Your task to perform on an android device: Open Google Maps and go to "Timeline" Image 0: 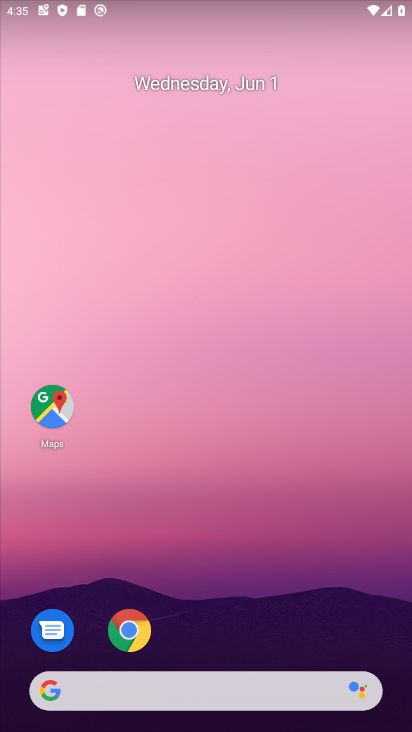
Step 0: click (43, 408)
Your task to perform on an android device: Open Google Maps and go to "Timeline" Image 1: 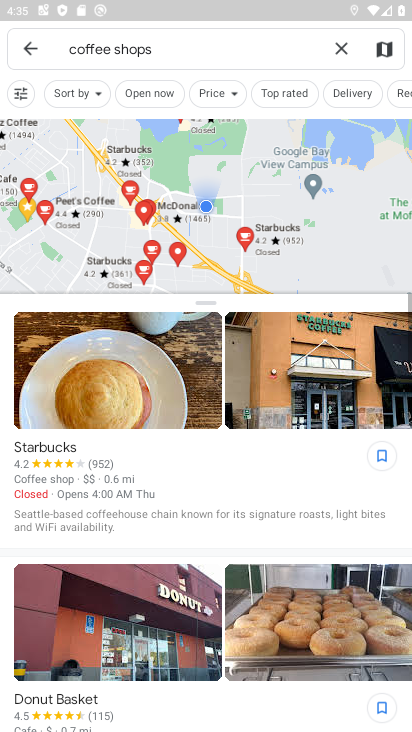
Step 1: click (34, 53)
Your task to perform on an android device: Open Google Maps and go to "Timeline" Image 2: 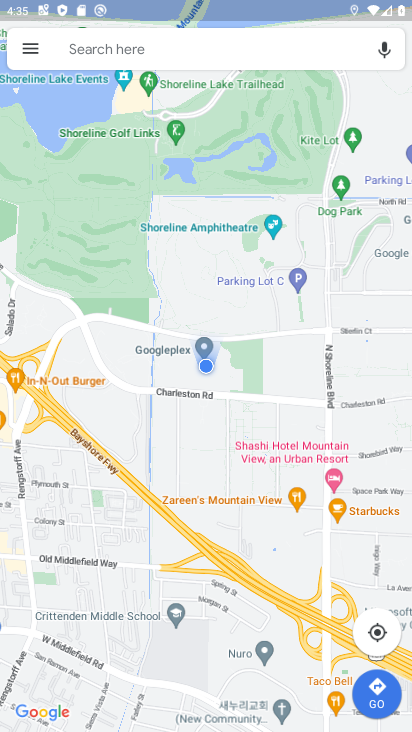
Step 2: click (33, 51)
Your task to perform on an android device: Open Google Maps and go to "Timeline" Image 3: 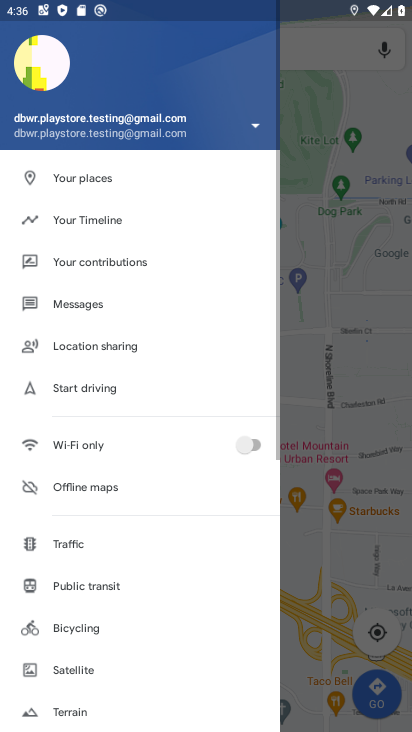
Step 3: click (125, 225)
Your task to perform on an android device: Open Google Maps and go to "Timeline" Image 4: 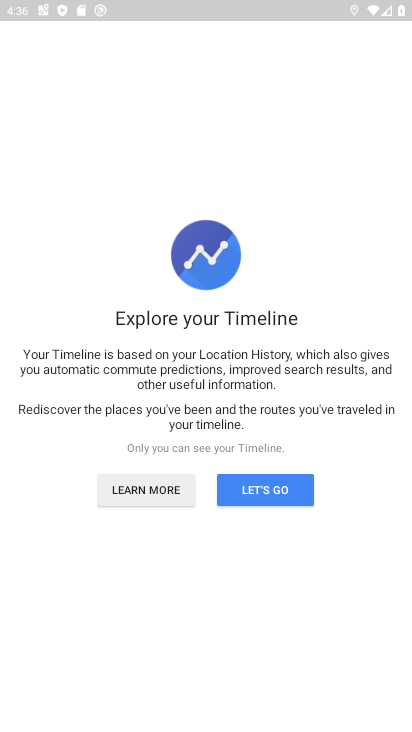
Step 4: click (246, 491)
Your task to perform on an android device: Open Google Maps and go to "Timeline" Image 5: 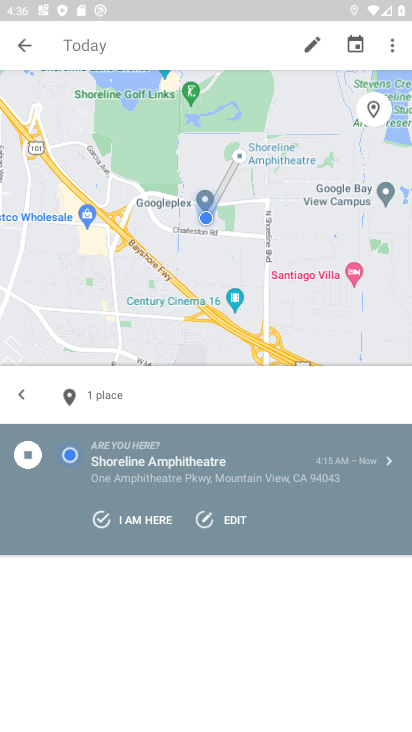
Step 5: task complete